Your task to perform on an android device: Open Chrome and go to settings Image 0: 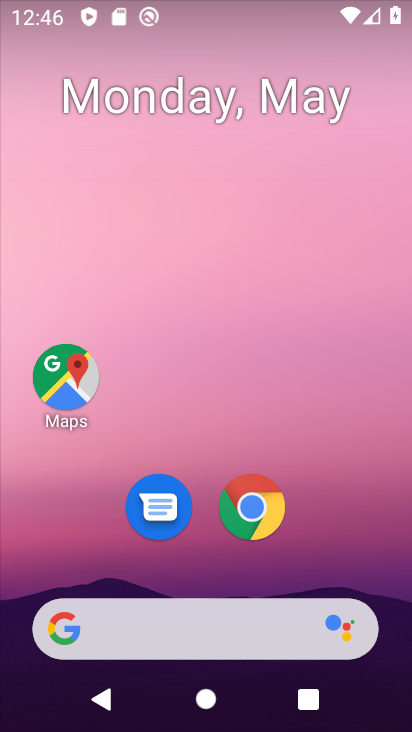
Step 0: click (258, 511)
Your task to perform on an android device: Open Chrome and go to settings Image 1: 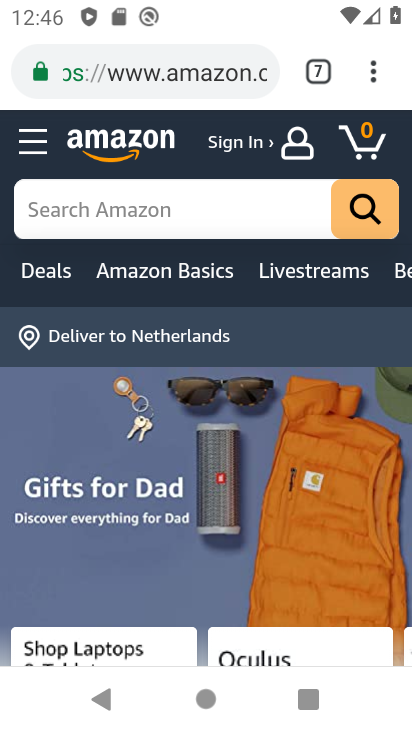
Step 1: click (370, 72)
Your task to perform on an android device: Open Chrome and go to settings Image 2: 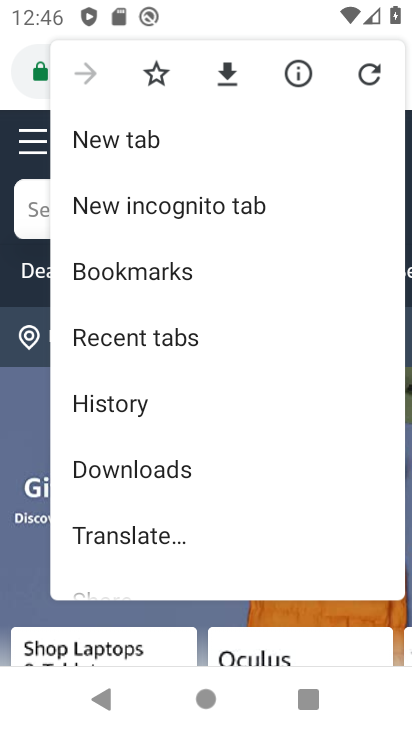
Step 2: drag from (169, 552) to (170, 110)
Your task to perform on an android device: Open Chrome and go to settings Image 3: 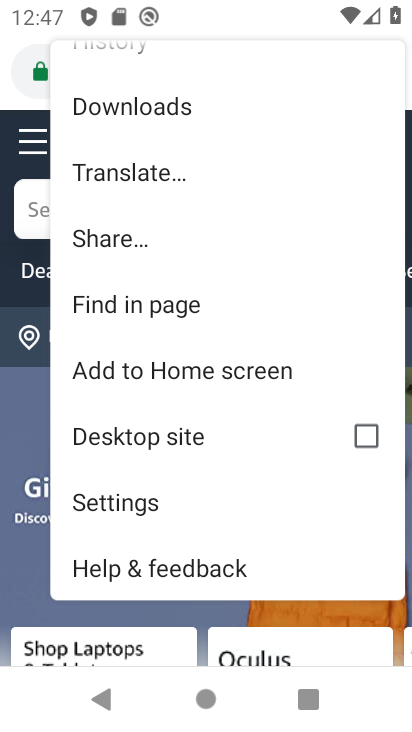
Step 3: click (134, 496)
Your task to perform on an android device: Open Chrome and go to settings Image 4: 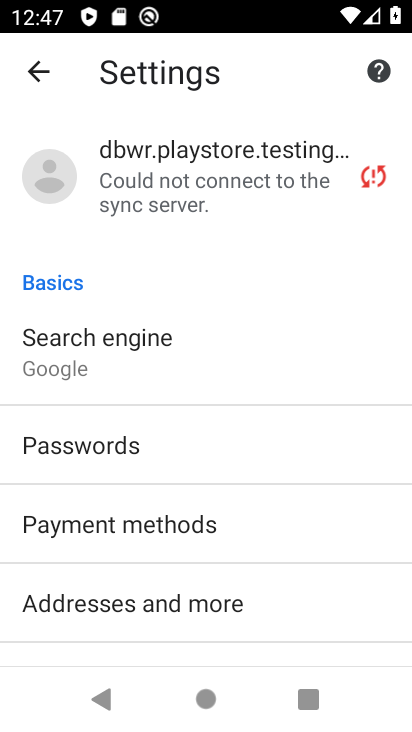
Step 4: task complete